Your task to perform on an android device: Open my contact list Image 0: 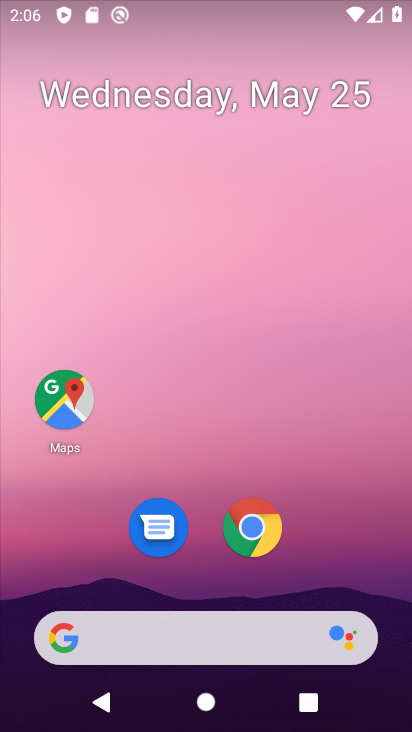
Step 0: drag from (289, 374) to (299, 77)
Your task to perform on an android device: Open my contact list Image 1: 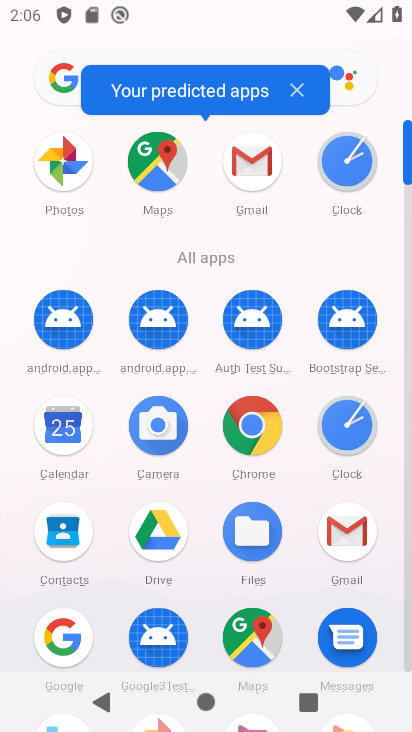
Step 1: click (84, 520)
Your task to perform on an android device: Open my contact list Image 2: 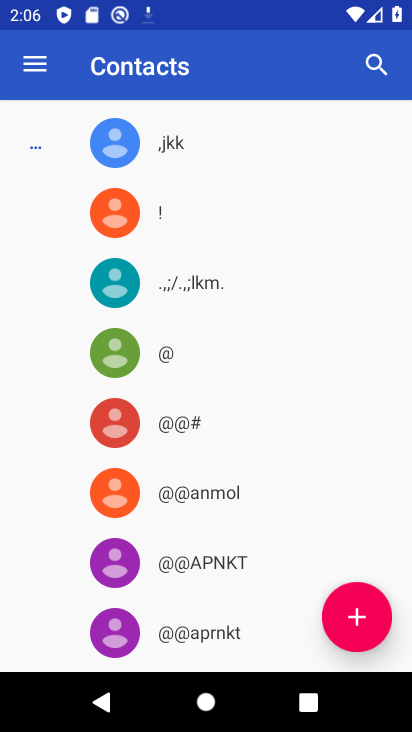
Step 2: task complete